Your task to perform on an android device: Go to Reddit.com Image 0: 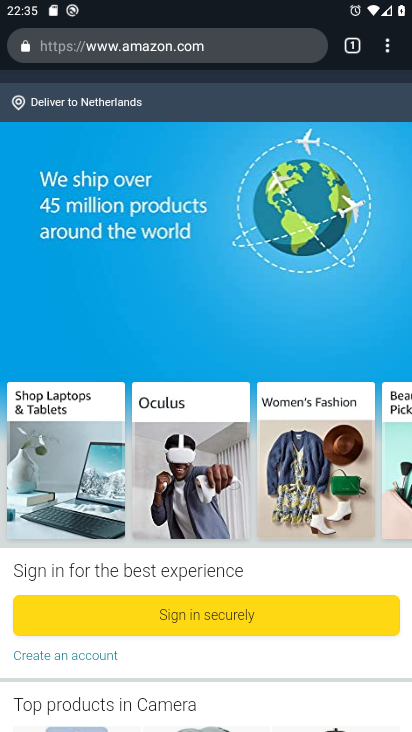
Step 0: click (161, 50)
Your task to perform on an android device: Go to Reddit.com Image 1: 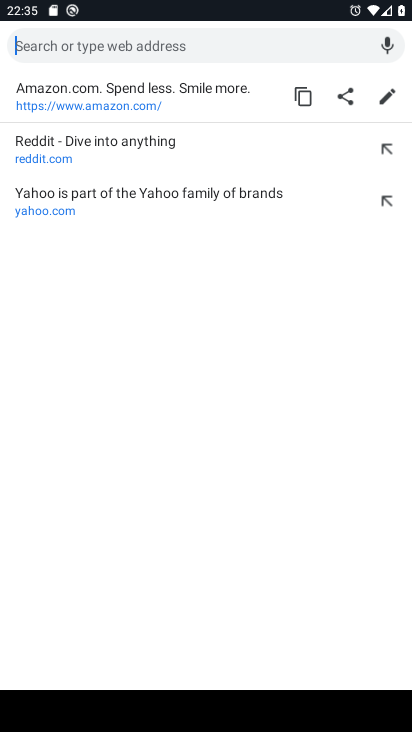
Step 1: click (108, 151)
Your task to perform on an android device: Go to Reddit.com Image 2: 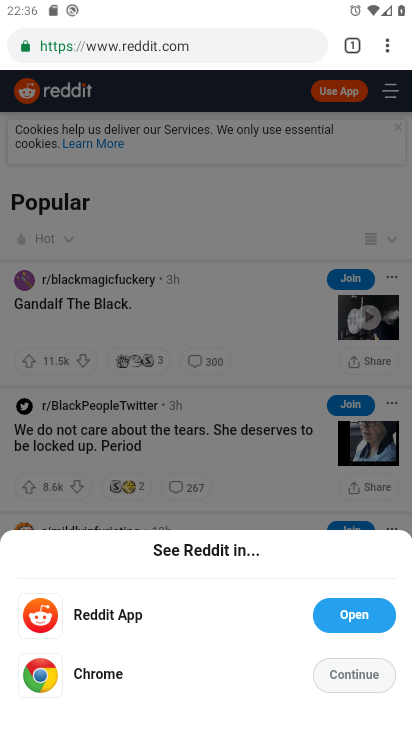
Step 2: task complete